Your task to perform on an android device: turn off location history Image 0: 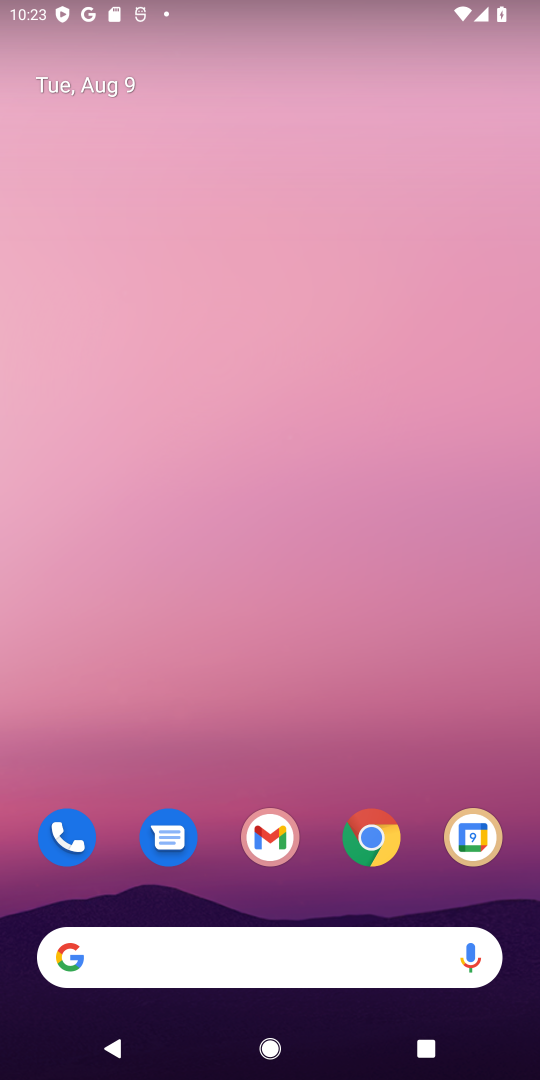
Step 0: drag from (335, 898) to (300, 63)
Your task to perform on an android device: turn off location history Image 1: 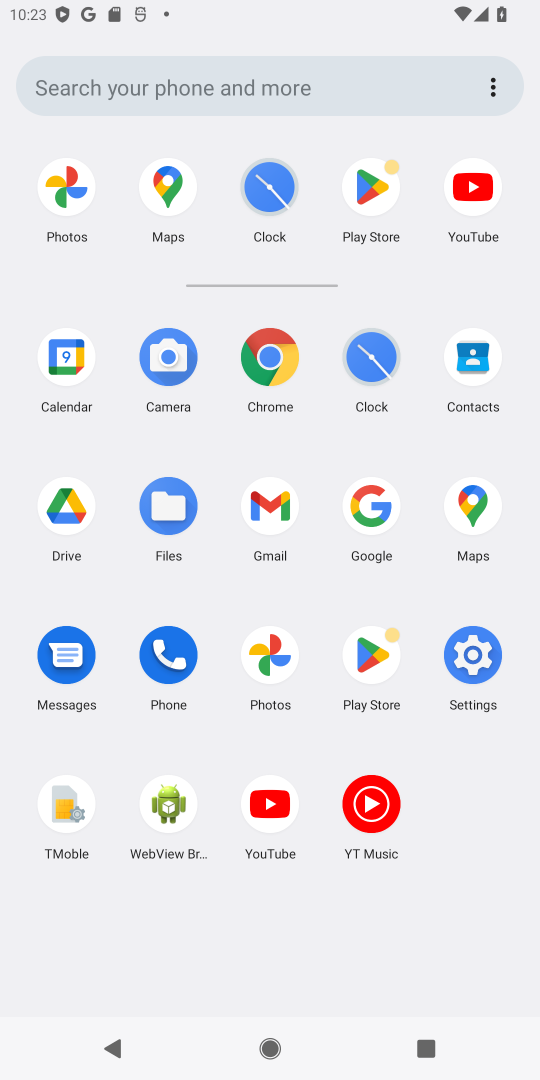
Step 1: click (476, 647)
Your task to perform on an android device: turn off location history Image 2: 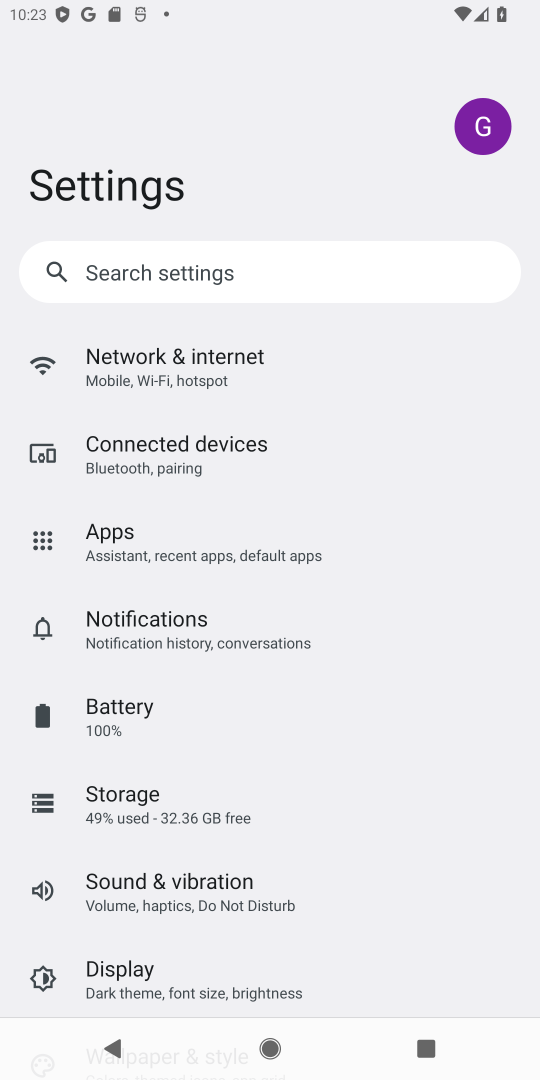
Step 2: drag from (181, 930) to (185, 451)
Your task to perform on an android device: turn off location history Image 3: 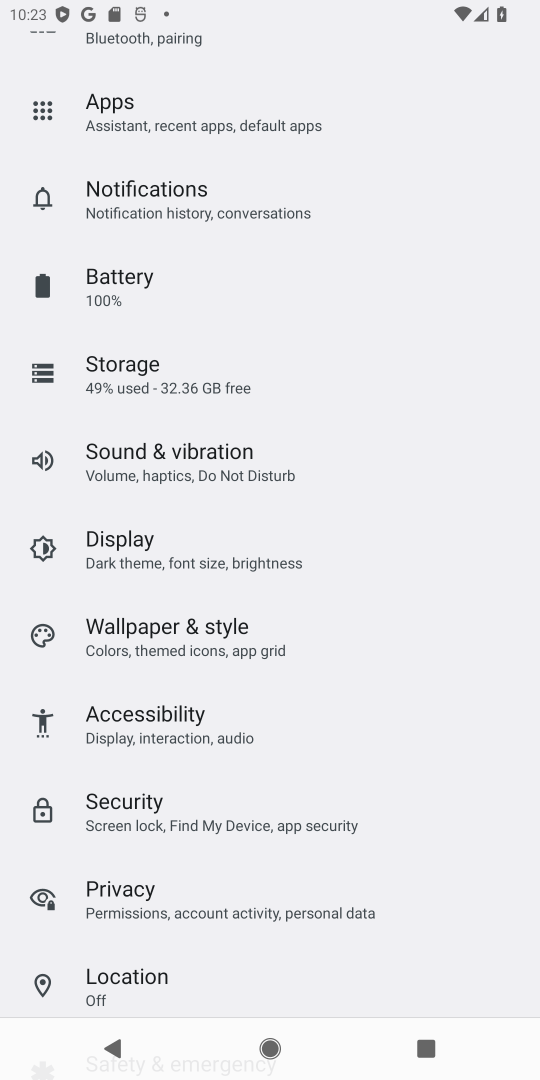
Step 3: click (138, 974)
Your task to perform on an android device: turn off location history Image 4: 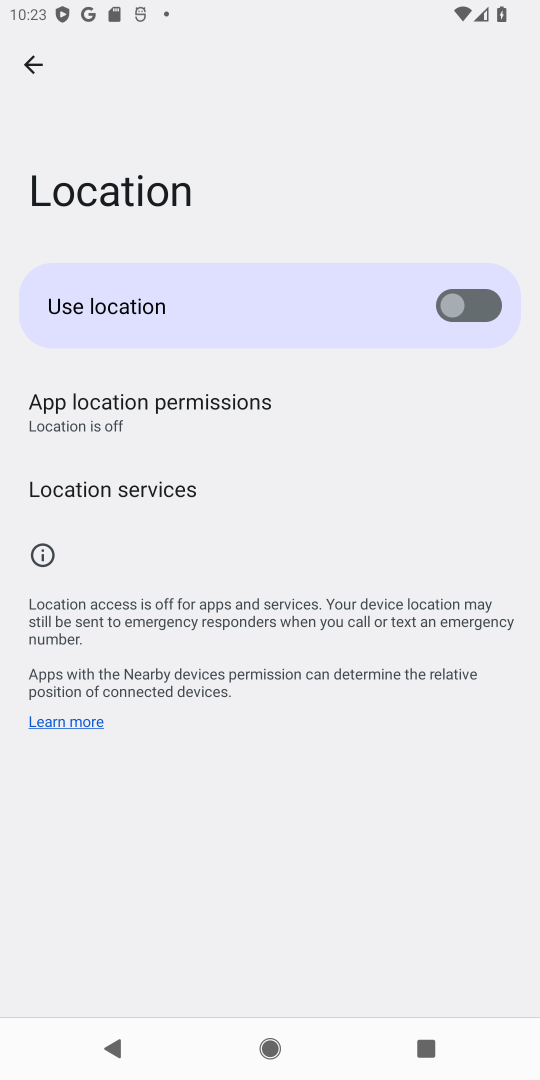
Step 4: task complete